Your task to perform on an android device: Clear all items from cart on bestbuy.com. Add macbook pro to the cart on bestbuy.com, then select checkout. Image 0: 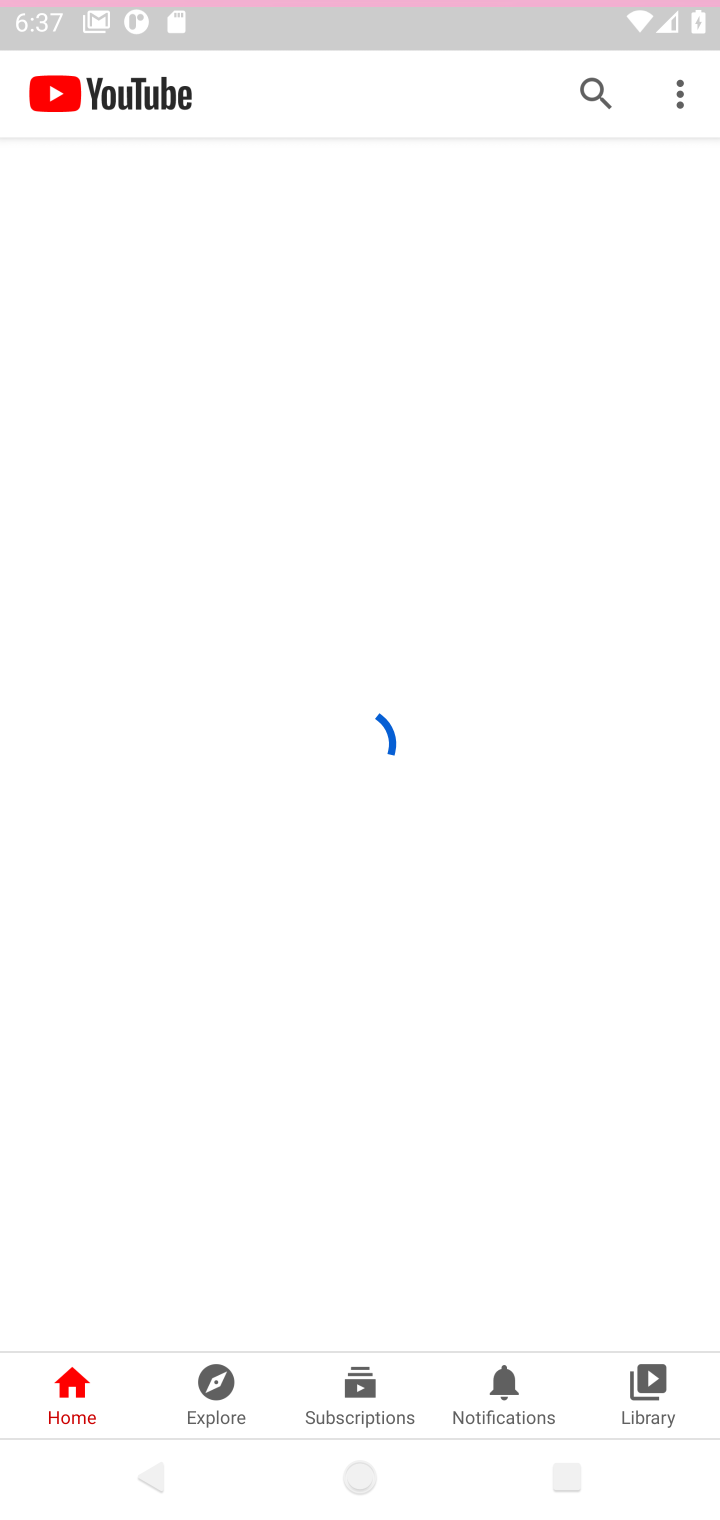
Step 0: press home button
Your task to perform on an android device: Clear all items from cart on bestbuy.com. Add macbook pro to the cart on bestbuy.com, then select checkout. Image 1: 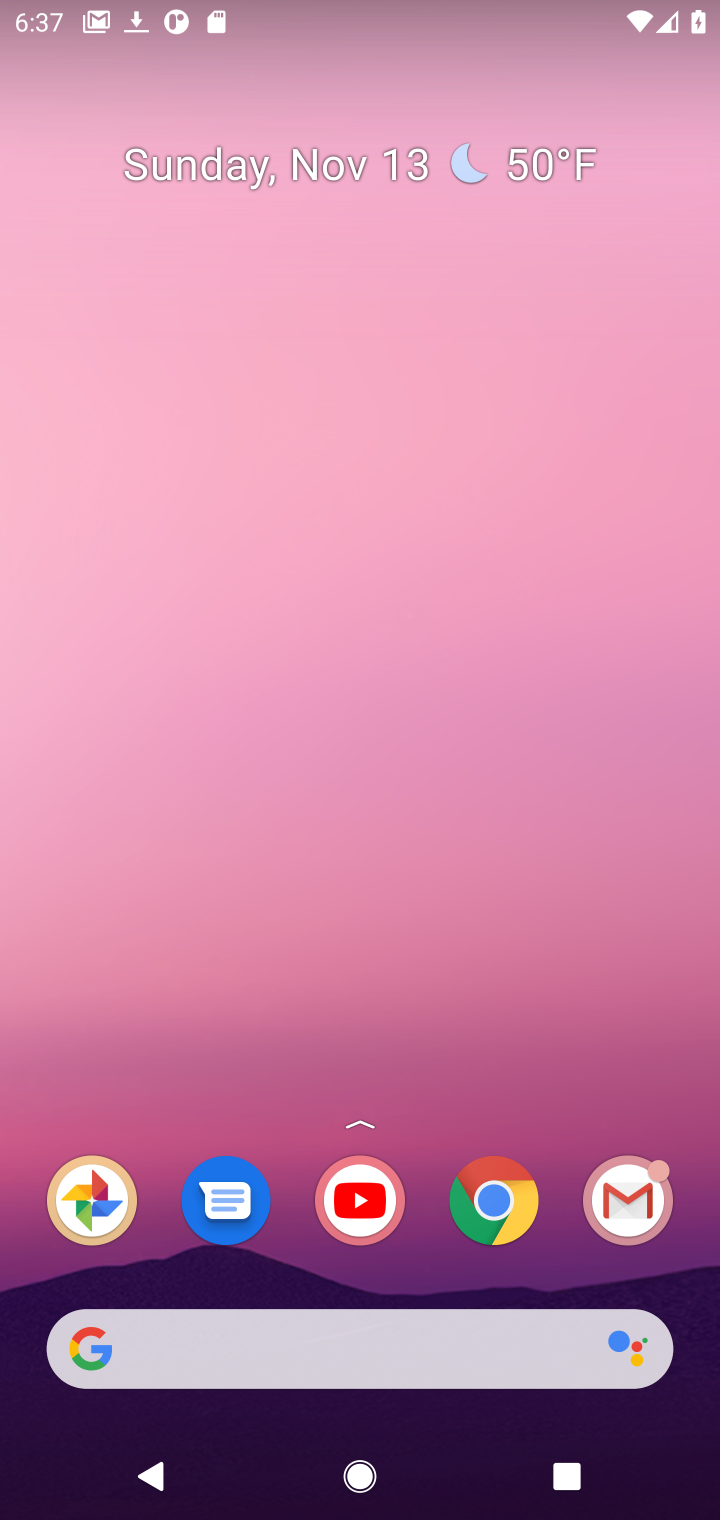
Step 1: click (493, 1215)
Your task to perform on an android device: Clear all items from cart on bestbuy.com. Add macbook pro to the cart on bestbuy.com, then select checkout. Image 2: 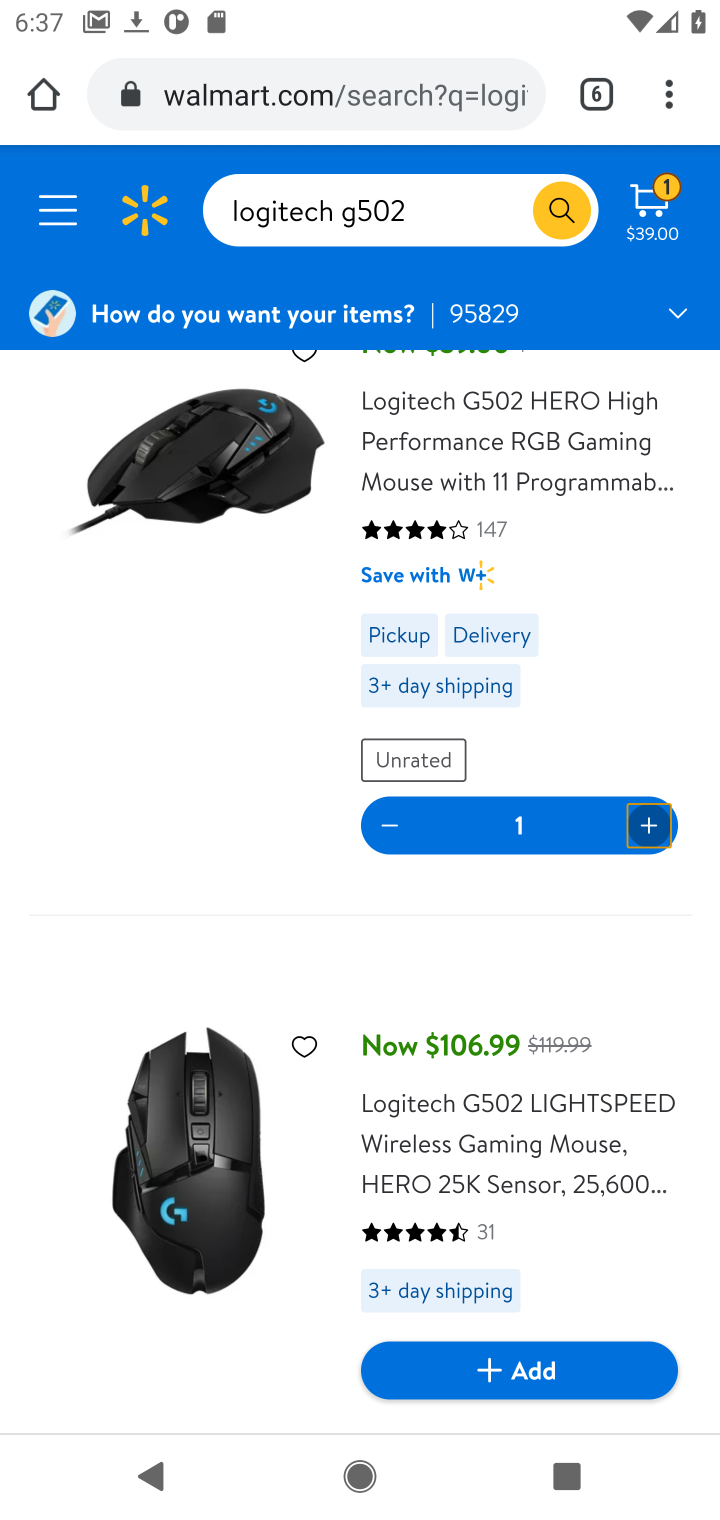
Step 2: click (593, 90)
Your task to perform on an android device: Clear all items from cart on bestbuy.com. Add macbook pro to the cart on bestbuy.com, then select checkout. Image 3: 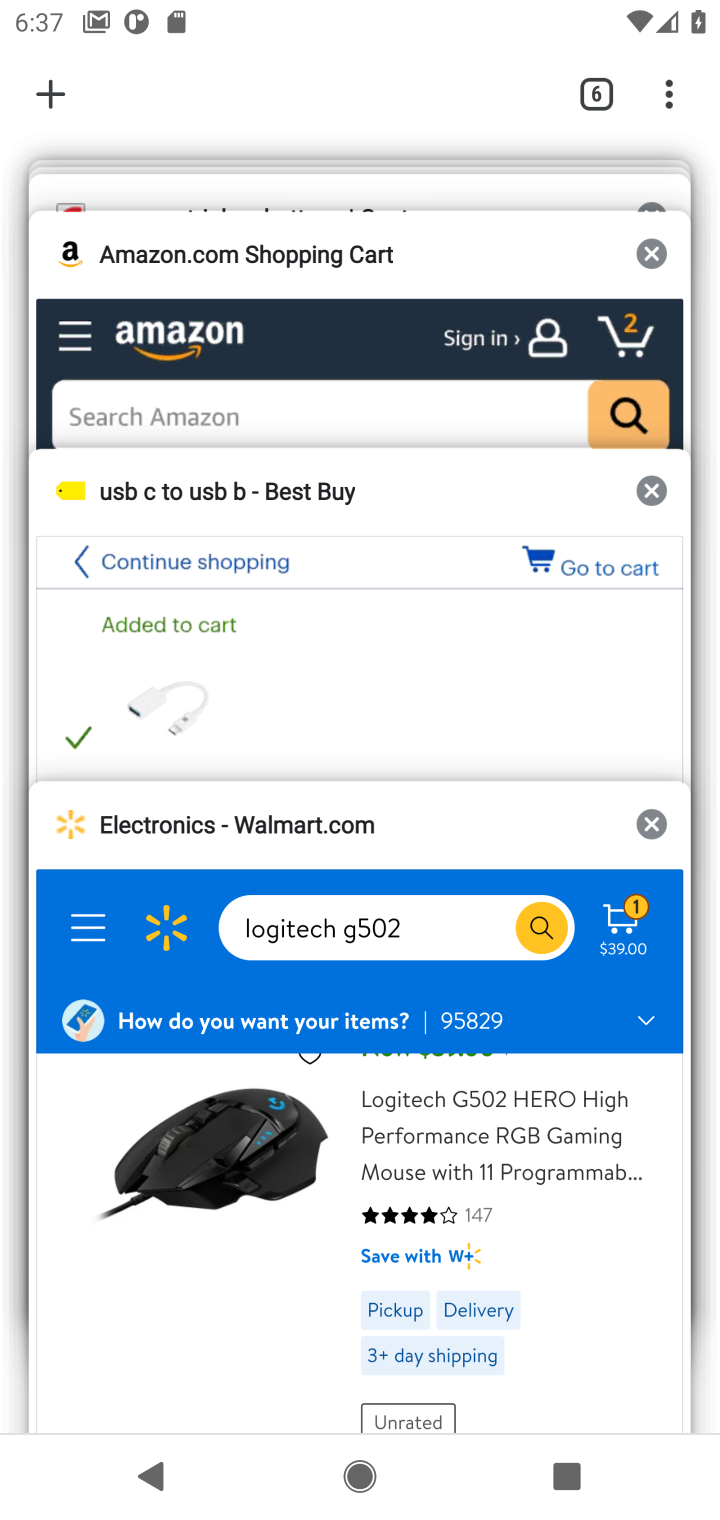
Step 3: click (314, 606)
Your task to perform on an android device: Clear all items from cart on bestbuy.com. Add macbook pro to the cart on bestbuy.com, then select checkout. Image 4: 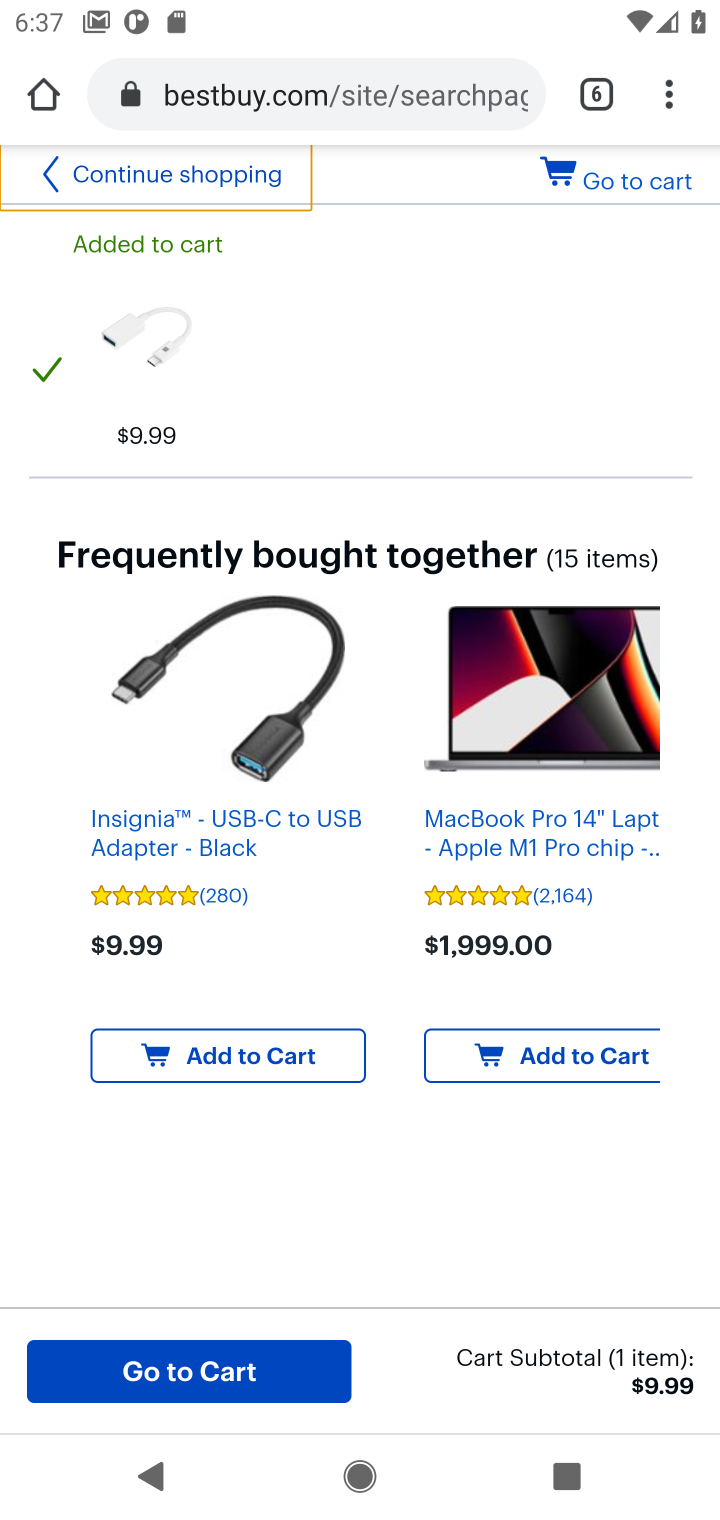
Step 4: click (197, 1380)
Your task to perform on an android device: Clear all items from cart on bestbuy.com. Add macbook pro to the cart on bestbuy.com, then select checkout. Image 5: 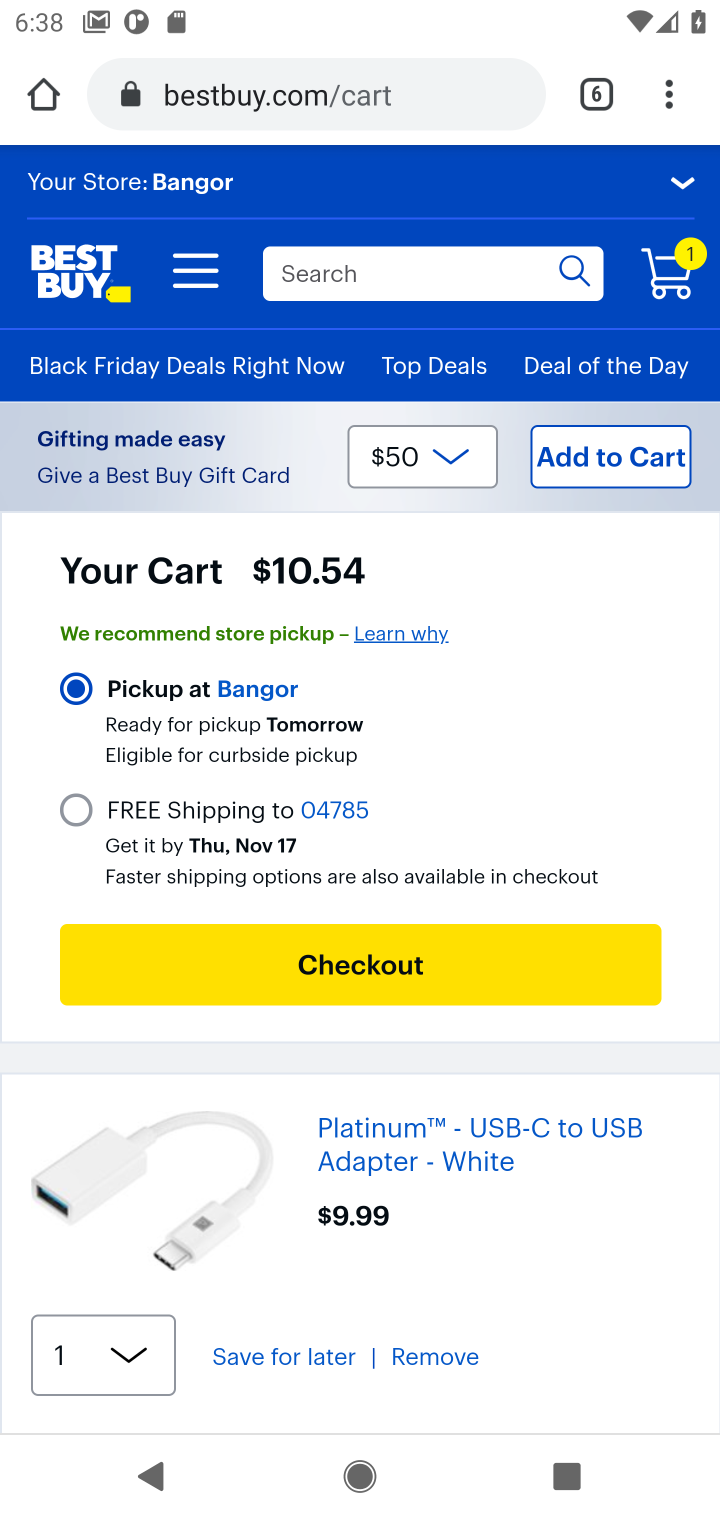
Step 5: click (424, 1358)
Your task to perform on an android device: Clear all items from cart on bestbuy.com. Add macbook pro to the cart on bestbuy.com, then select checkout. Image 6: 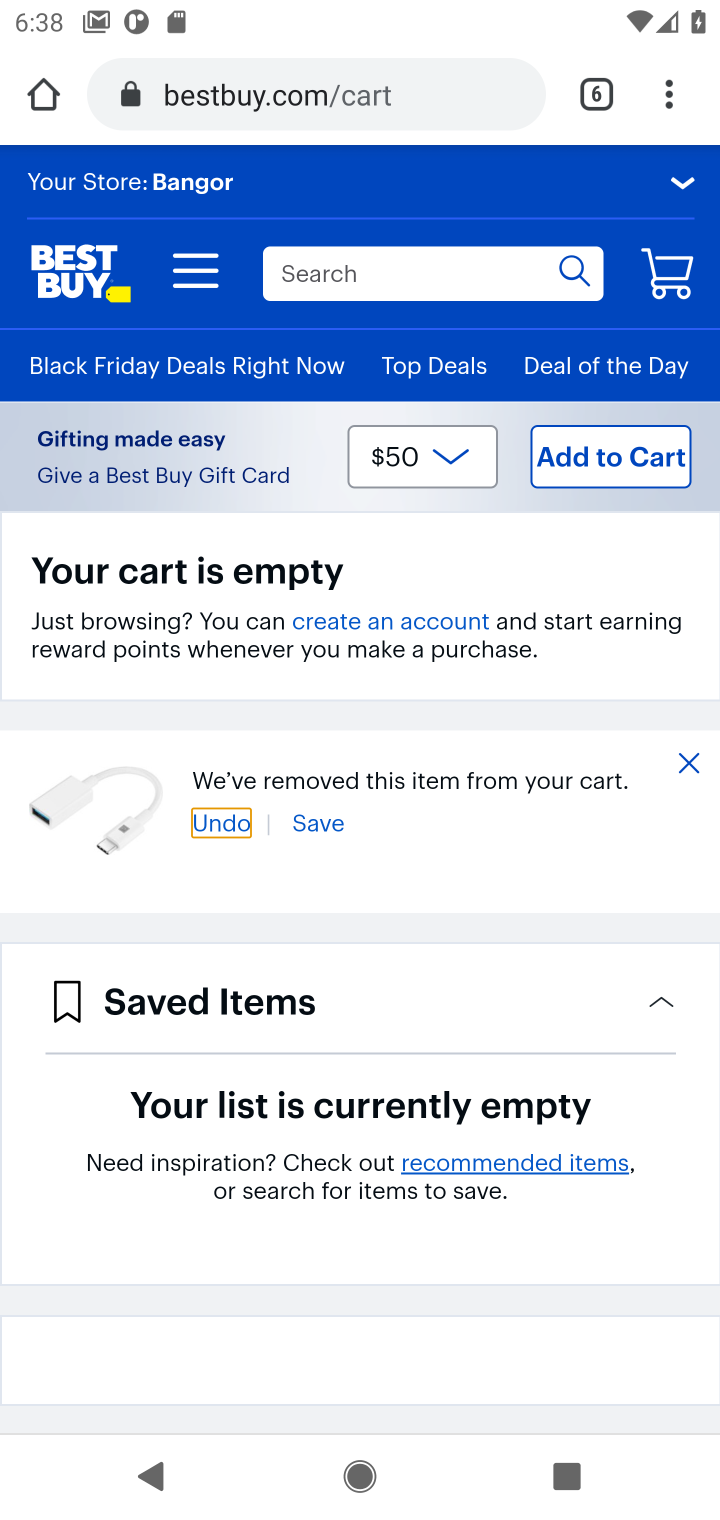
Step 6: click (458, 273)
Your task to perform on an android device: Clear all items from cart on bestbuy.com. Add macbook pro to the cart on bestbuy.com, then select checkout. Image 7: 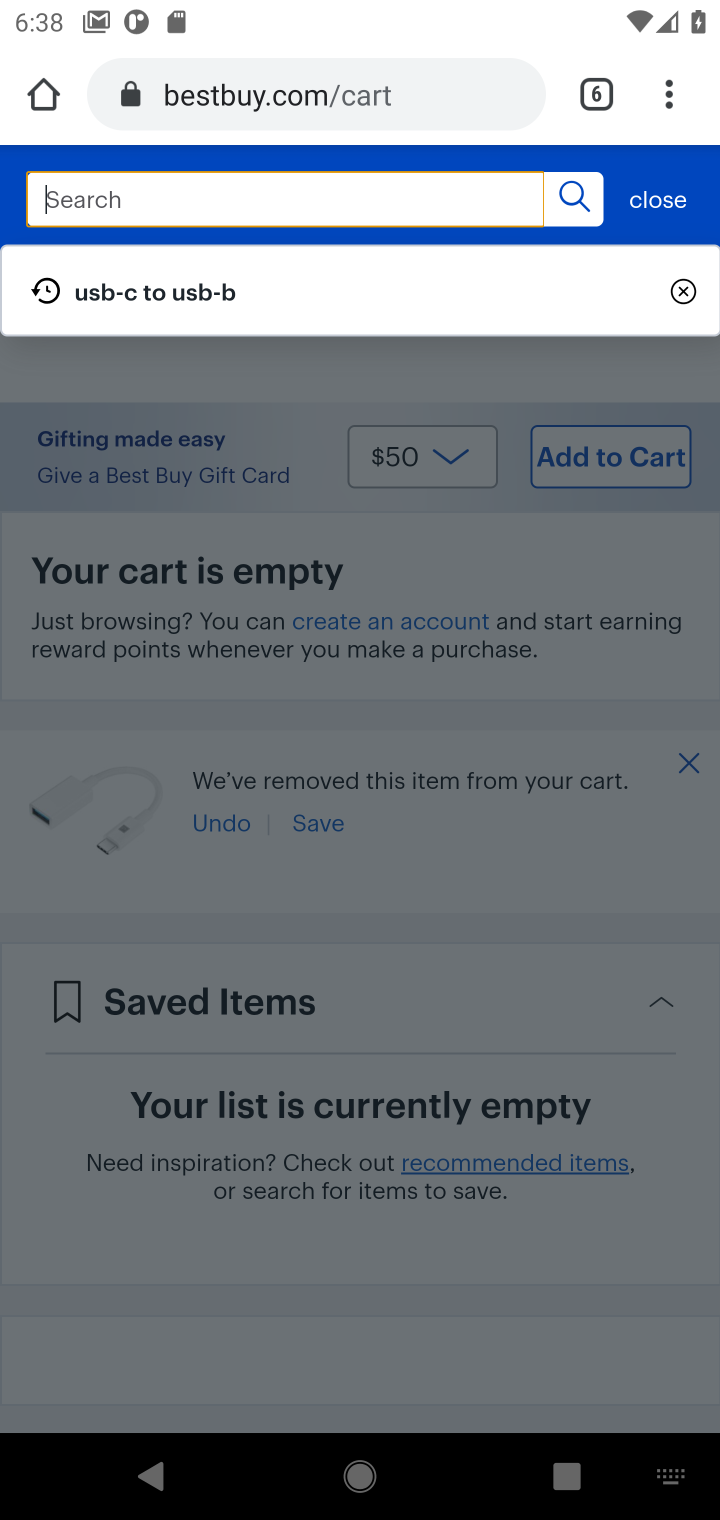
Step 7: type "macbook pro"
Your task to perform on an android device: Clear all items from cart on bestbuy.com. Add macbook pro to the cart on bestbuy.com, then select checkout. Image 8: 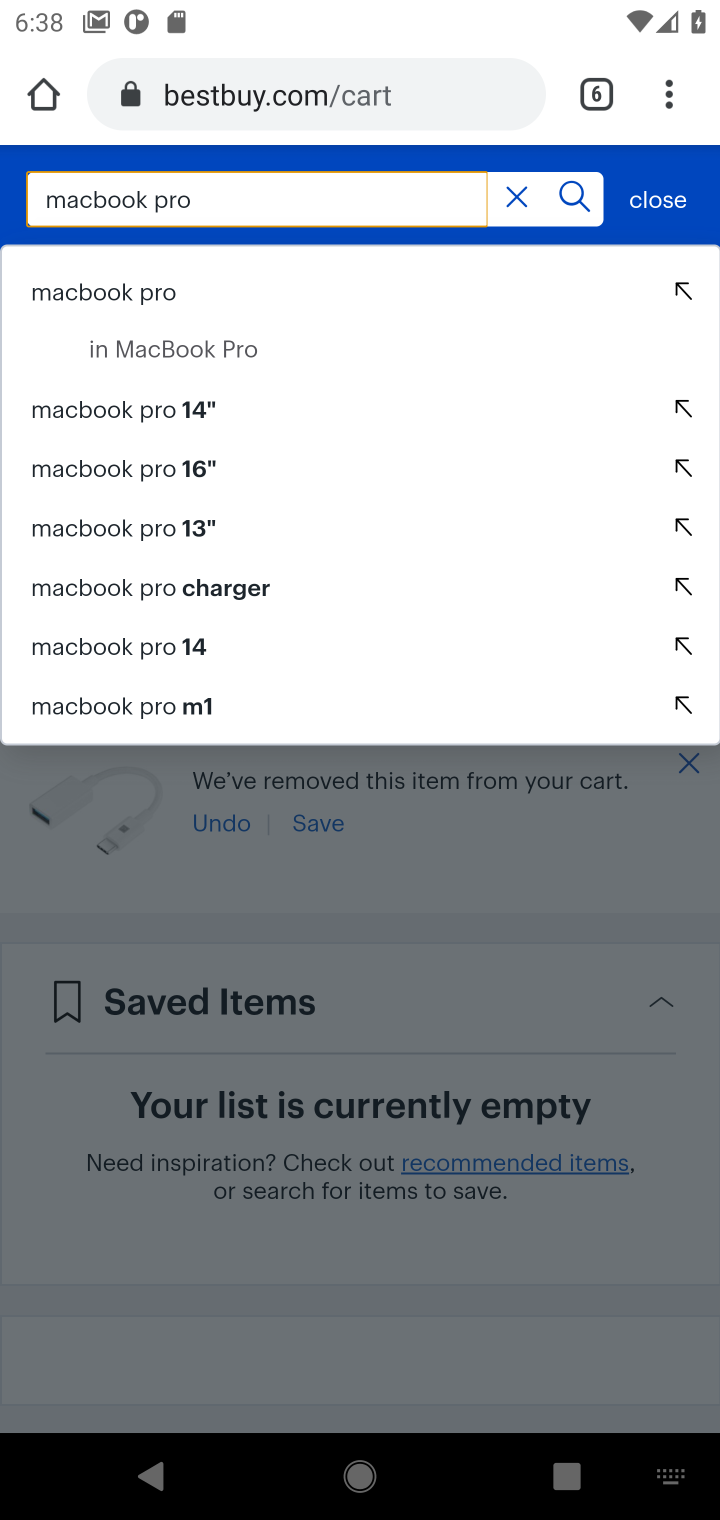
Step 8: click (62, 297)
Your task to perform on an android device: Clear all items from cart on bestbuy.com. Add macbook pro to the cart on bestbuy.com, then select checkout. Image 9: 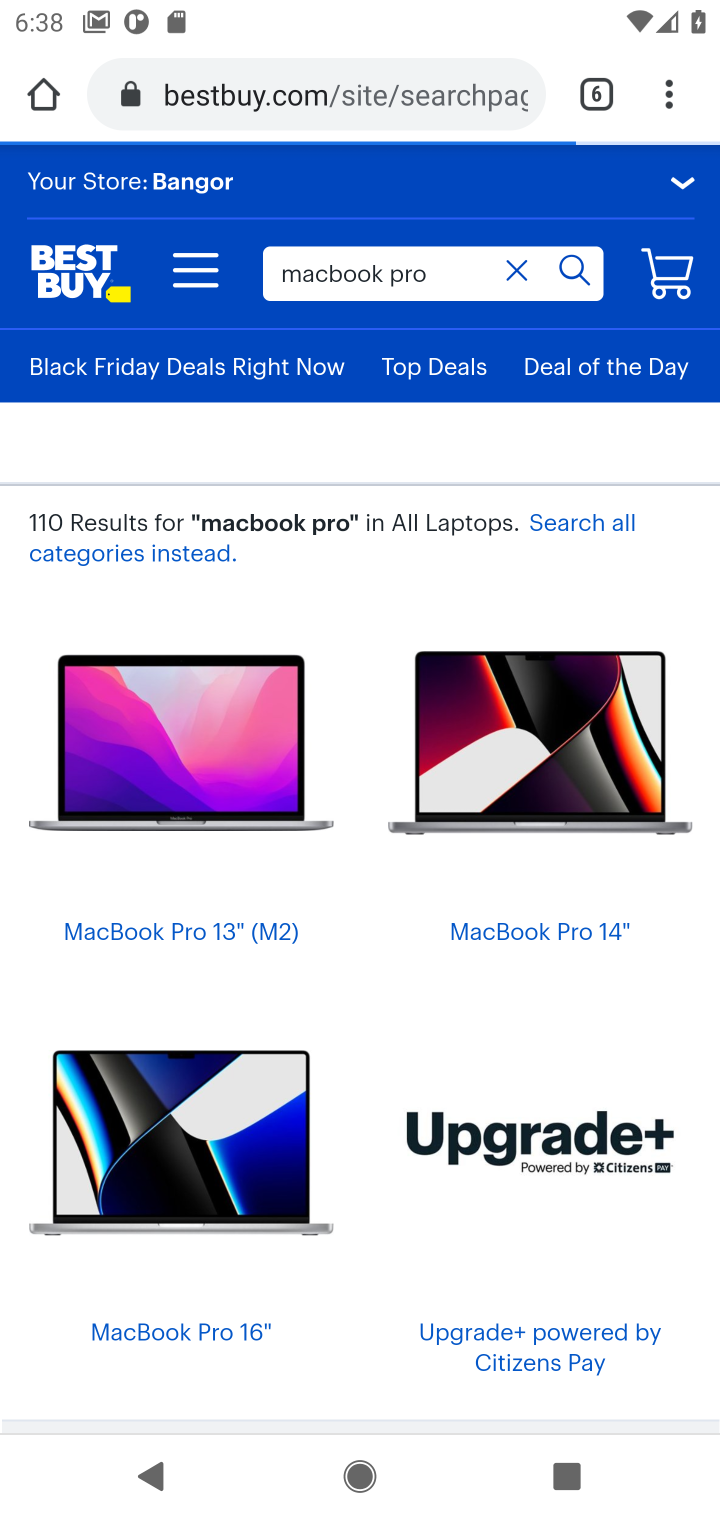
Step 9: drag from (367, 1226) to (489, 101)
Your task to perform on an android device: Clear all items from cart on bestbuy.com. Add macbook pro to the cart on bestbuy.com, then select checkout. Image 10: 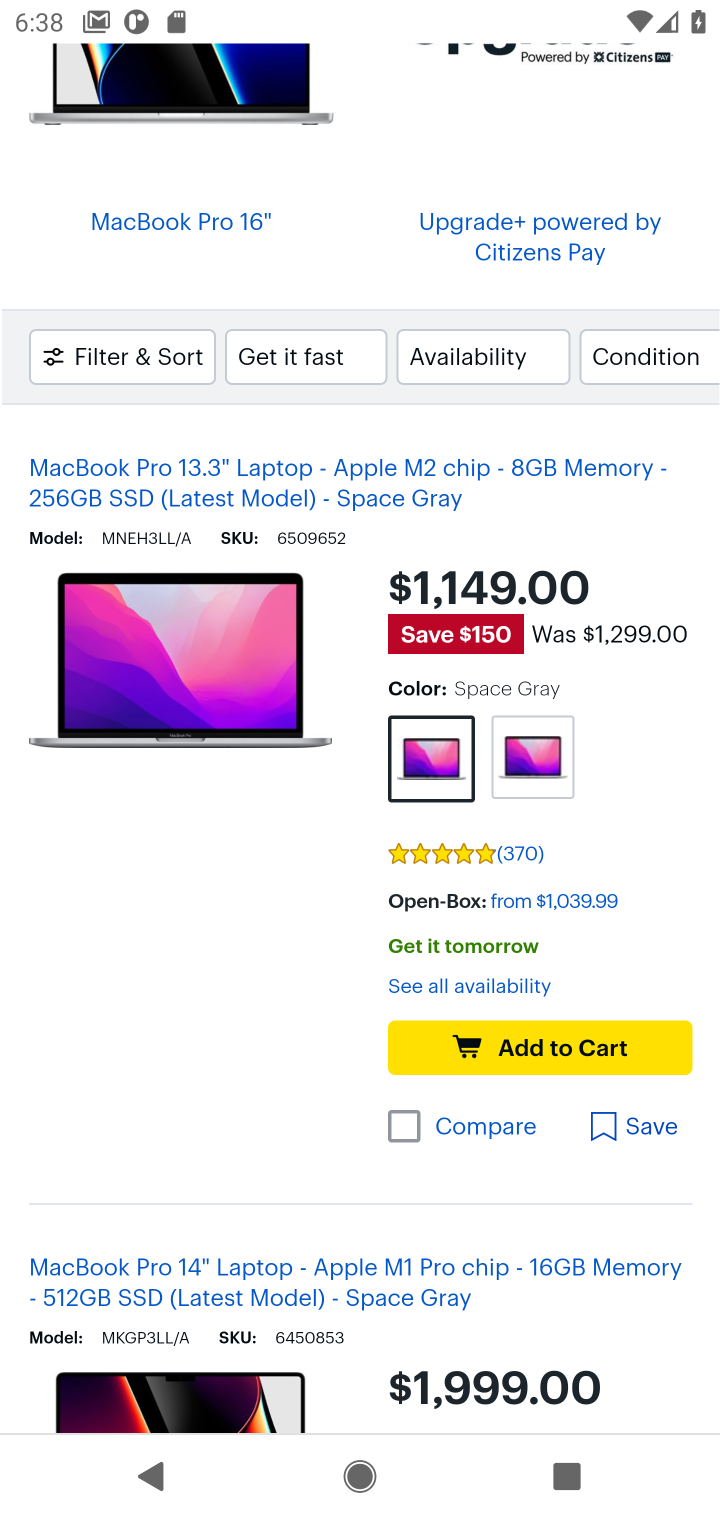
Step 10: click (508, 1101)
Your task to perform on an android device: Clear all items from cart on bestbuy.com. Add macbook pro to the cart on bestbuy.com, then select checkout. Image 11: 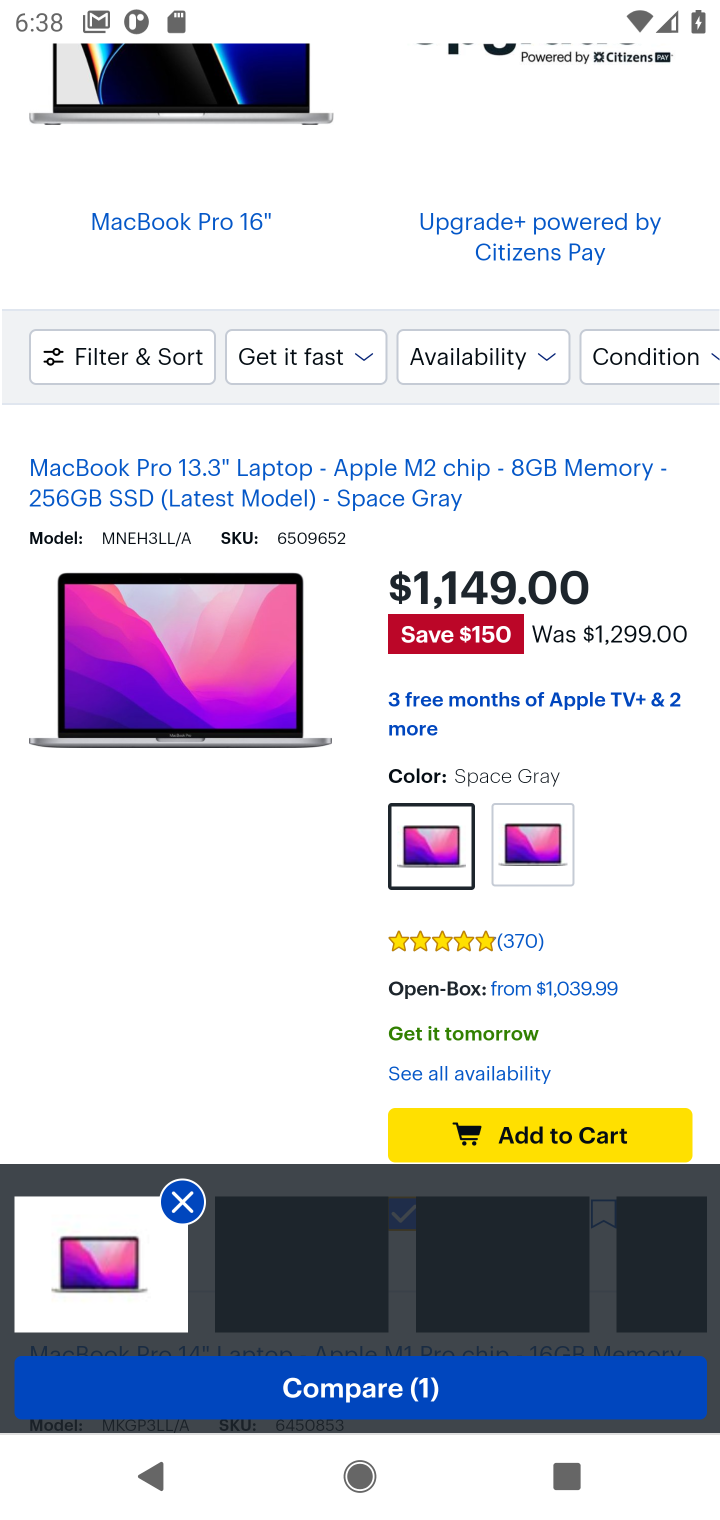
Step 11: click (185, 1203)
Your task to perform on an android device: Clear all items from cart on bestbuy.com. Add macbook pro to the cart on bestbuy.com, then select checkout. Image 12: 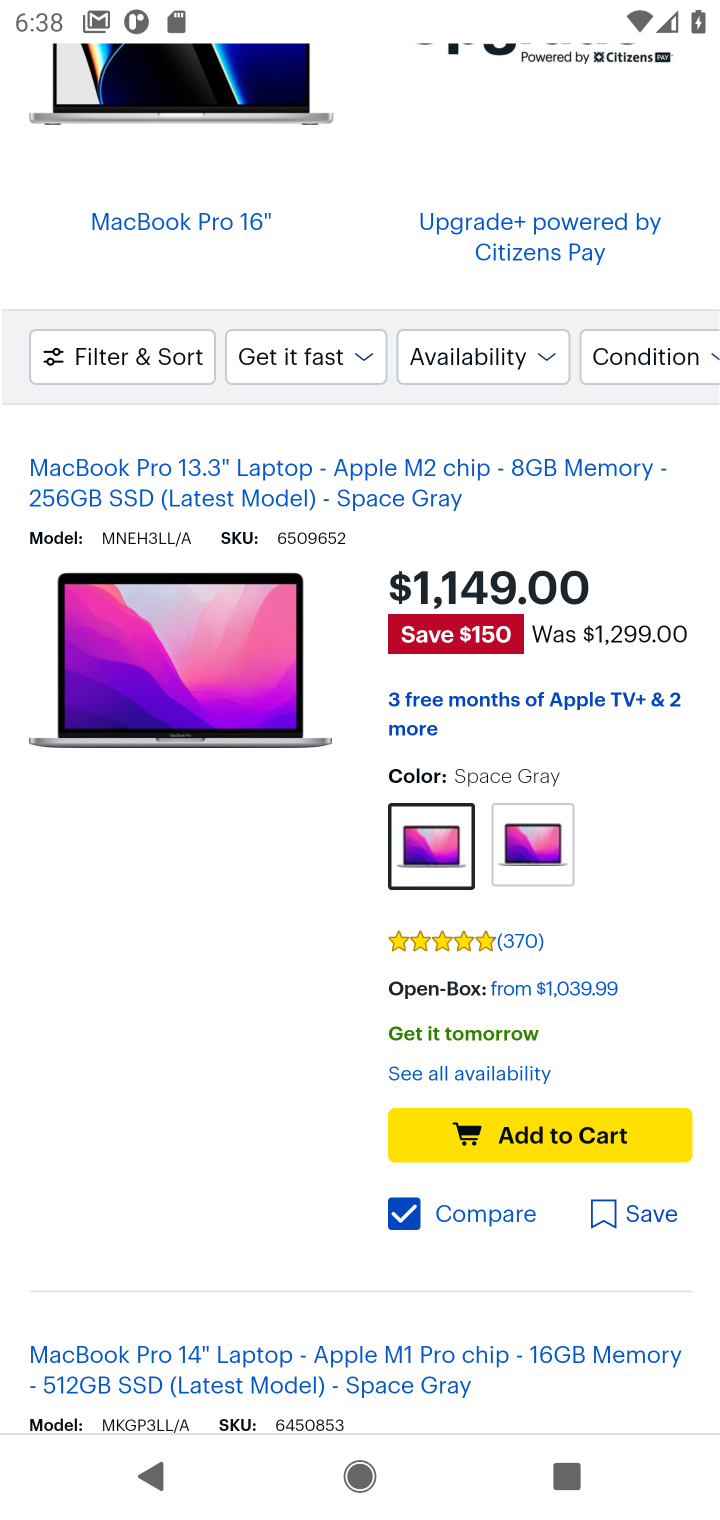
Step 12: click (578, 1134)
Your task to perform on an android device: Clear all items from cart on bestbuy.com. Add macbook pro to the cart on bestbuy.com, then select checkout. Image 13: 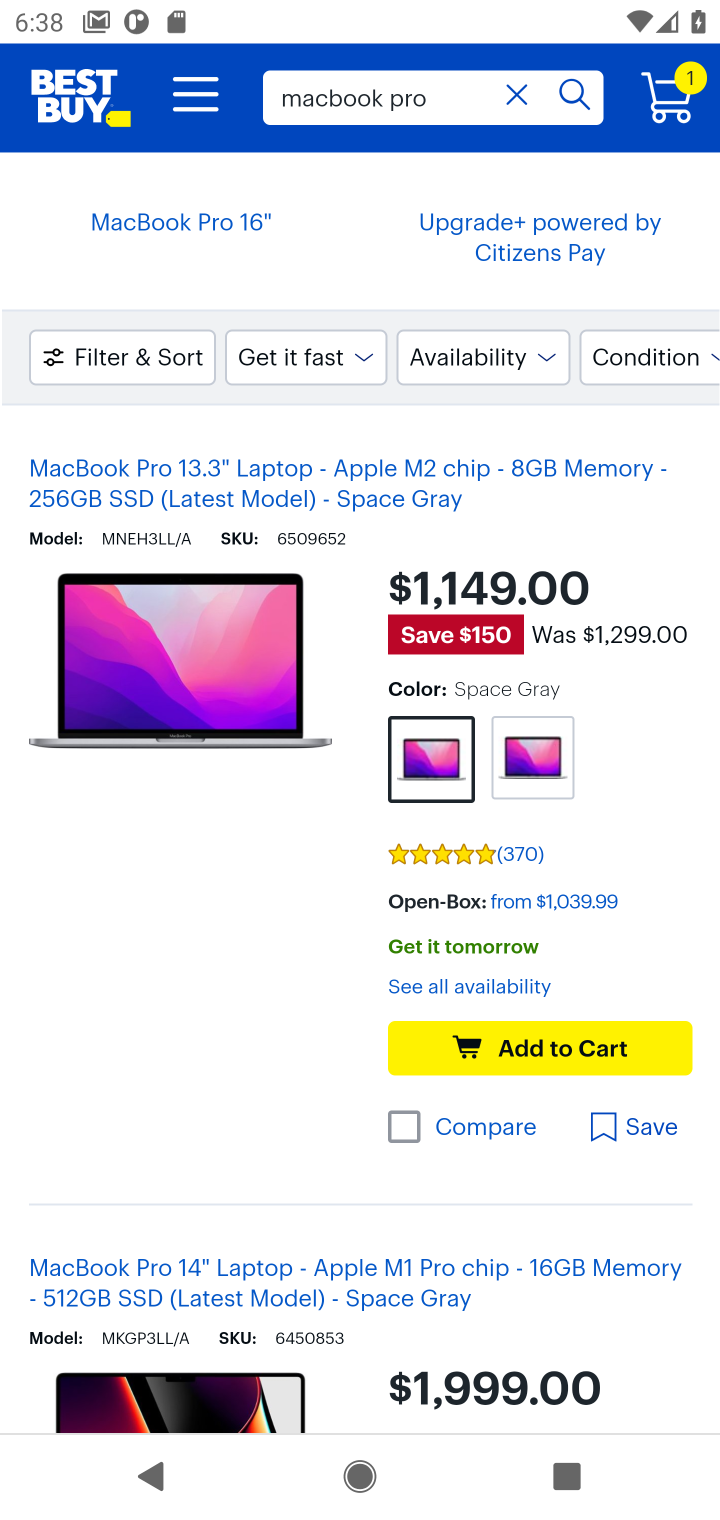
Step 13: click (669, 105)
Your task to perform on an android device: Clear all items from cart on bestbuy.com. Add macbook pro to the cart on bestbuy.com, then select checkout. Image 14: 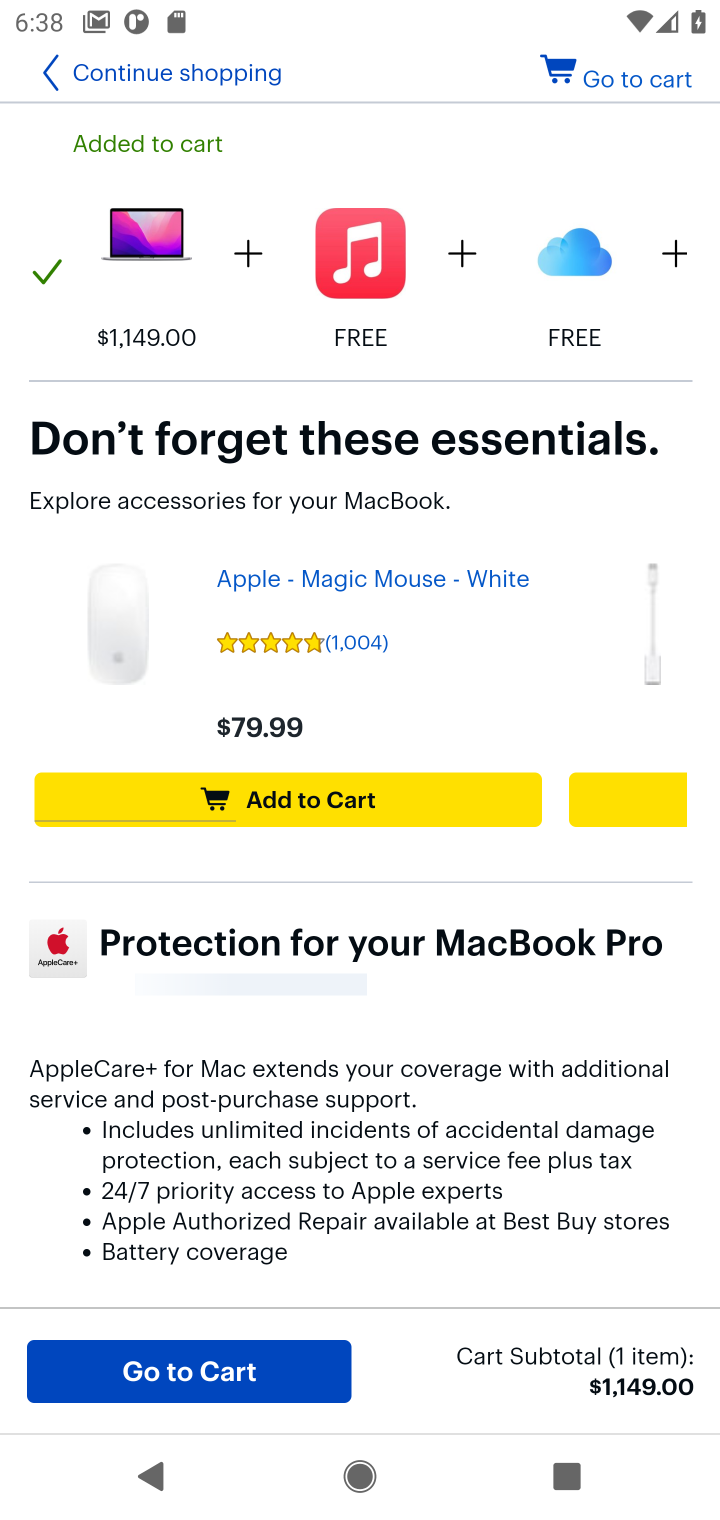
Step 14: click (272, 1363)
Your task to perform on an android device: Clear all items from cart on bestbuy.com. Add macbook pro to the cart on bestbuy.com, then select checkout. Image 15: 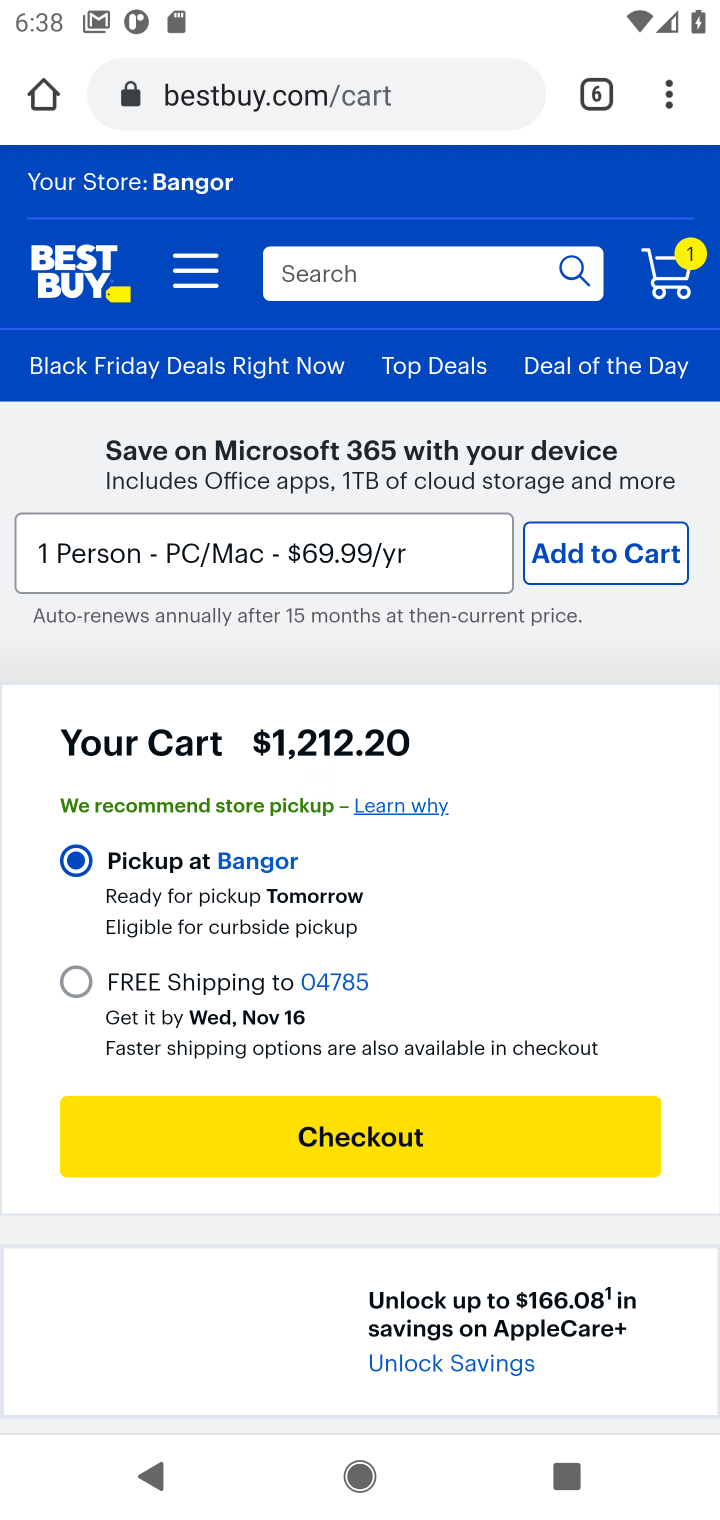
Step 15: click (360, 1128)
Your task to perform on an android device: Clear all items from cart on bestbuy.com. Add macbook pro to the cart on bestbuy.com, then select checkout. Image 16: 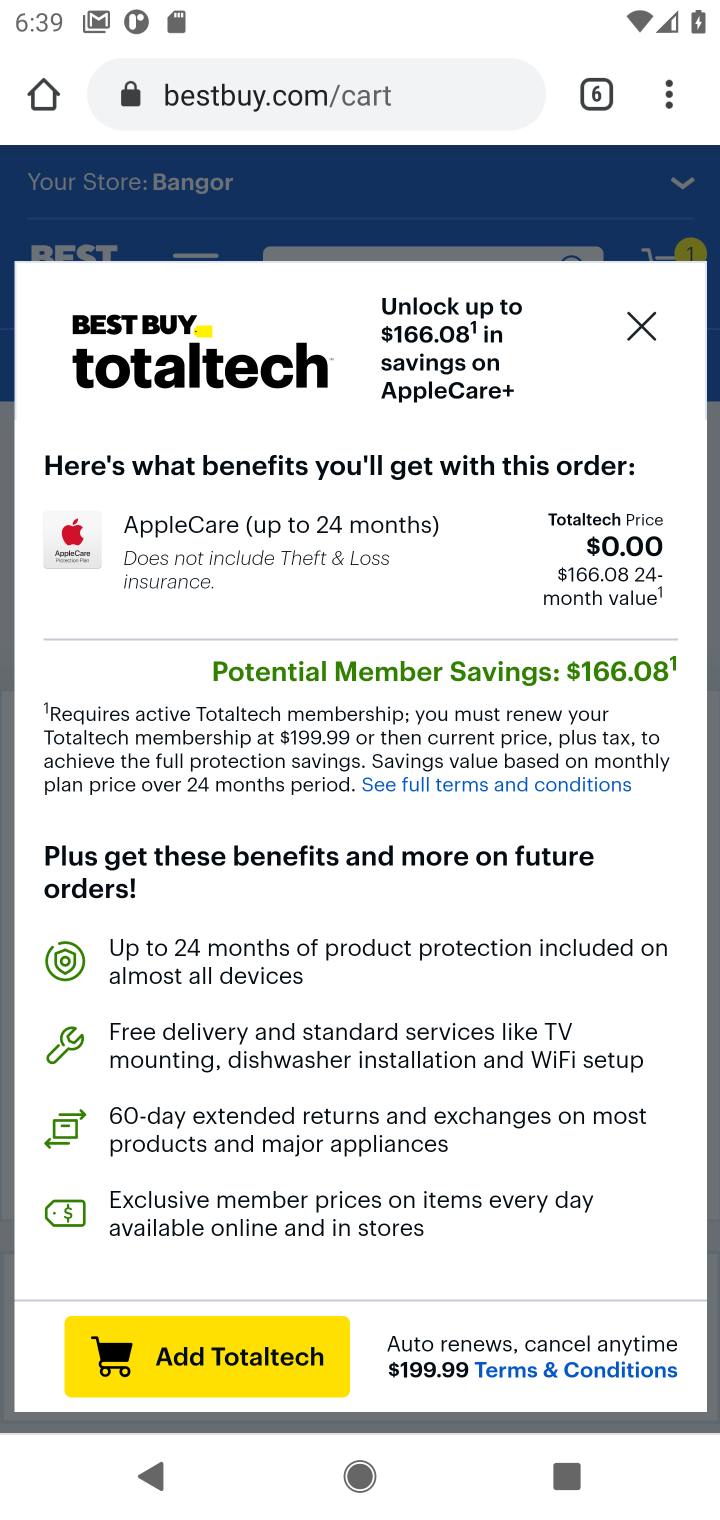
Step 16: click (653, 324)
Your task to perform on an android device: Clear all items from cart on bestbuy.com. Add macbook pro to the cart on bestbuy.com, then select checkout. Image 17: 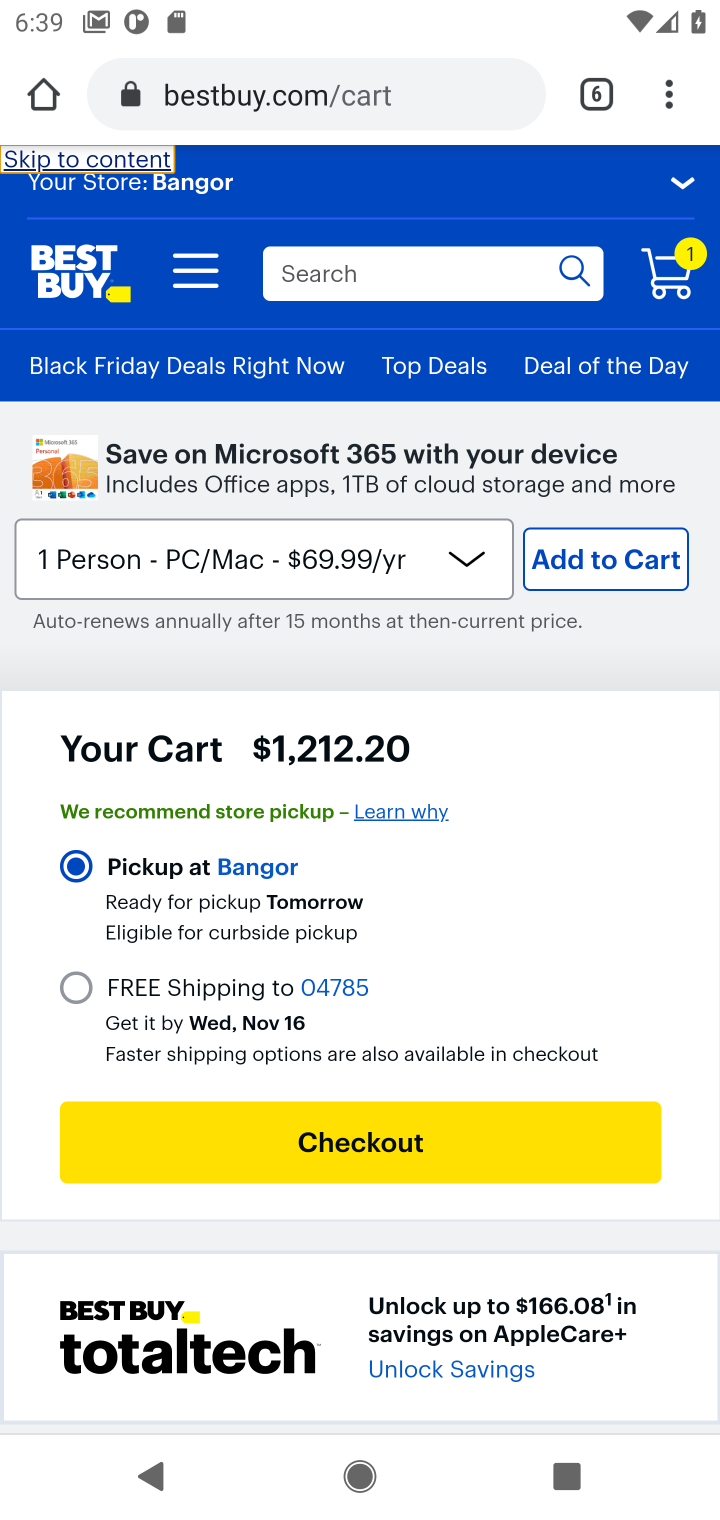
Step 17: click (384, 1137)
Your task to perform on an android device: Clear all items from cart on bestbuy.com. Add macbook pro to the cart on bestbuy.com, then select checkout. Image 18: 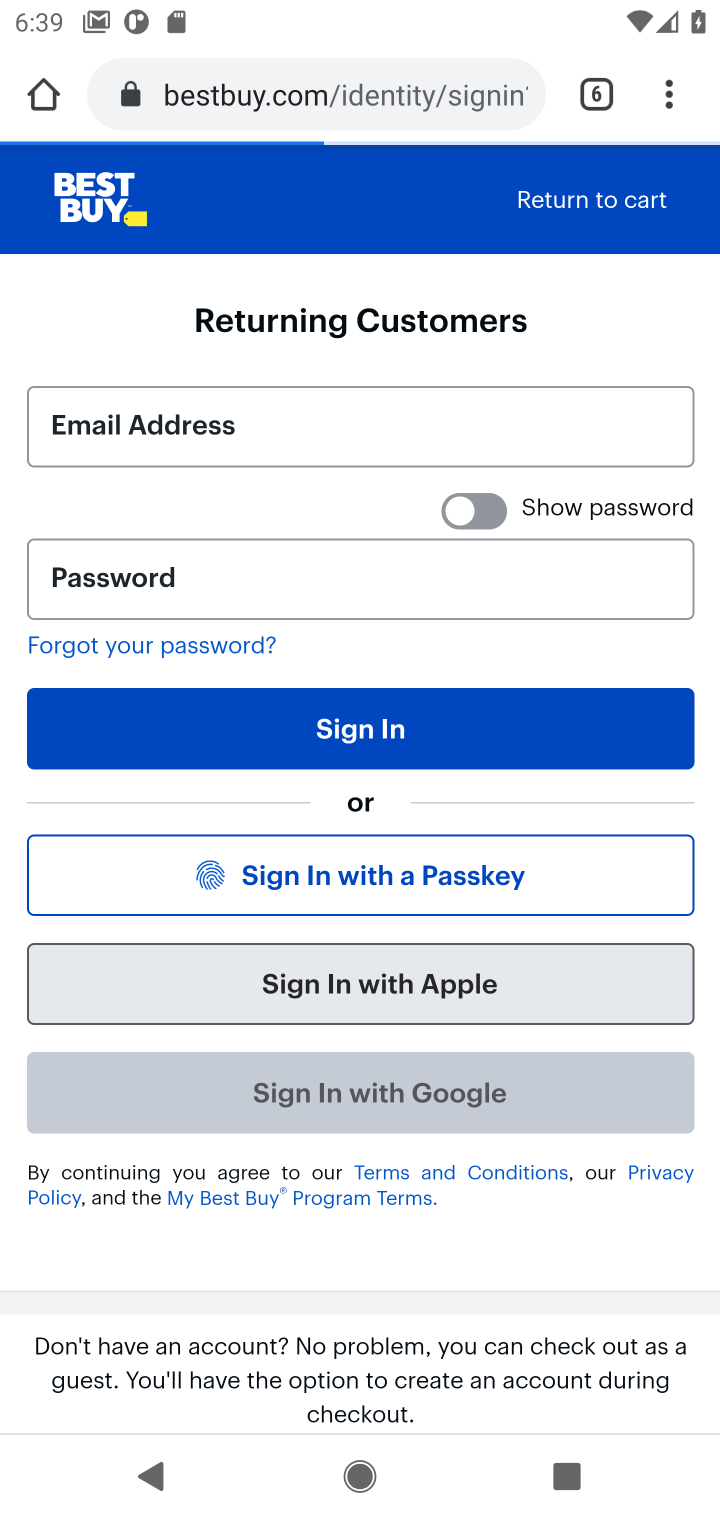
Step 18: task complete